Your task to perform on an android device: Is it going to rain tomorrow? Image 0: 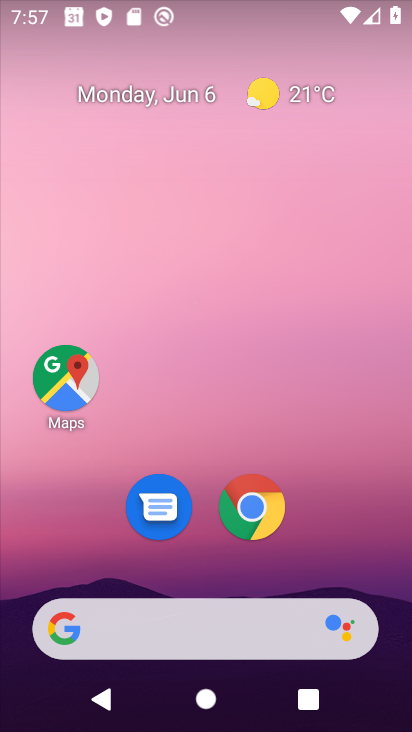
Step 0: drag from (182, 570) to (147, 55)
Your task to perform on an android device: Is it going to rain tomorrow? Image 1: 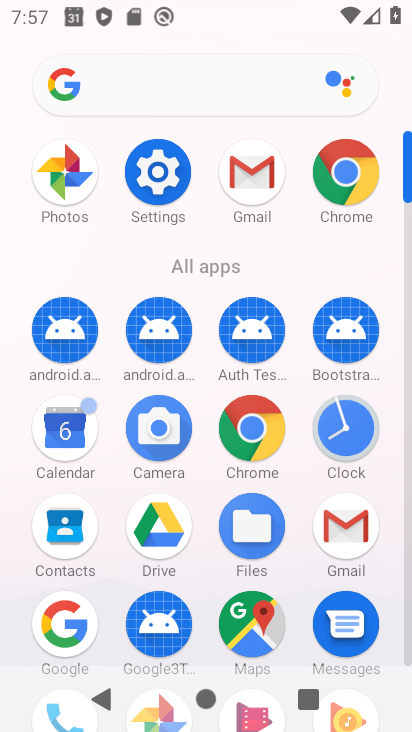
Step 1: drag from (185, 569) to (261, 115)
Your task to perform on an android device: Is it going to rain tomorrow? Image 2: 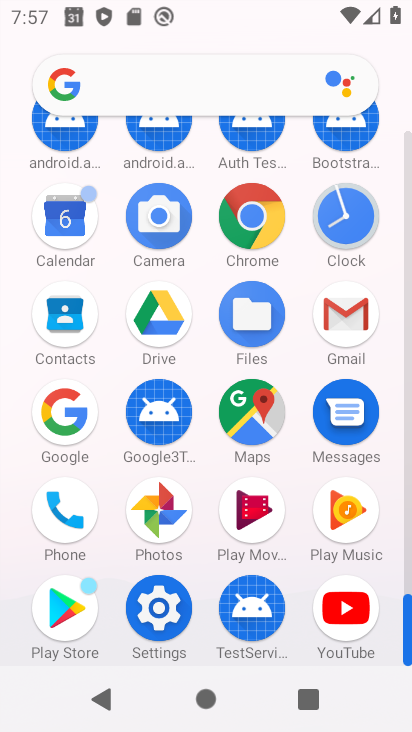
Step 2: drag from (209, 253) to (172, 731)
Your task to perform on an android device: Is it going to rain tomorrow? Image 3: 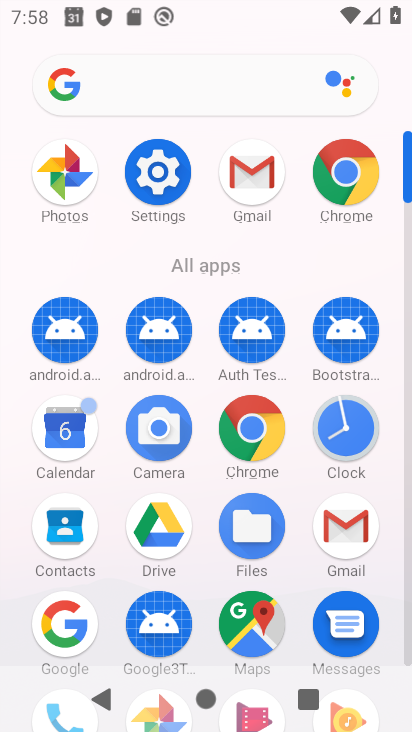
Step 3: drag from (198, 581) to (241, 236)
Your task to perform on an android device: Is it going to rain tomorrow? Image 4: 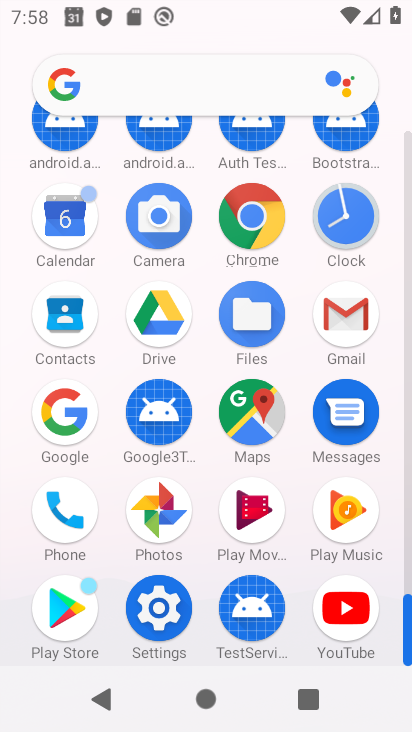
Step 4: drag from (204, 202) to (248, 686)
Your task to perform on an android device: Is it going to rain tomorrow? Image 5: 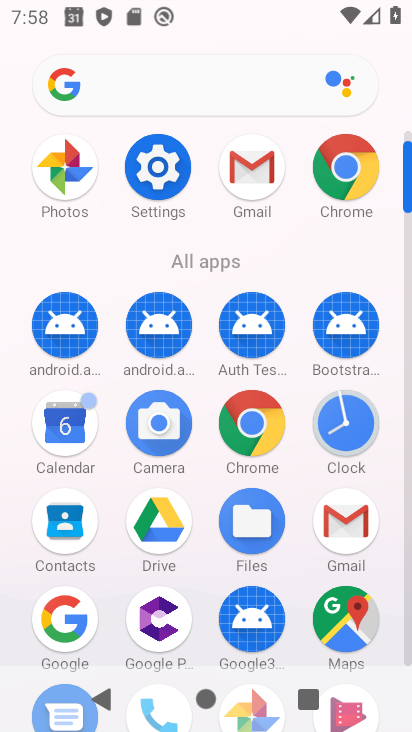
Step 5: drag from (197, 316) to (195, 528)
Your task to perform on an android device: Is it going to rain tomorrow? Image 6: 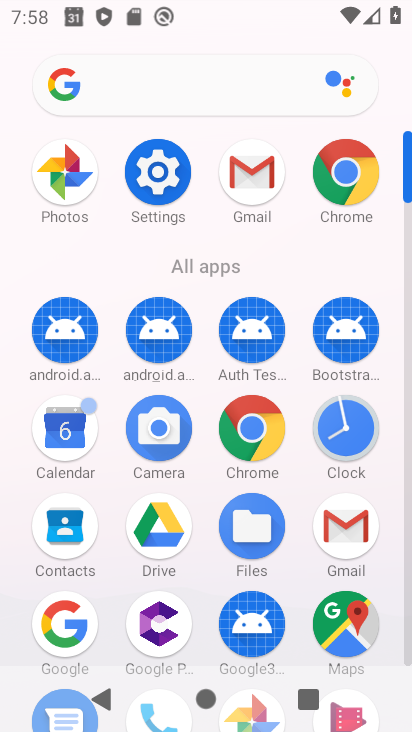
Step 6: drag from (199, 639) to (261, 377)
Your task to perform on an android device: Is it going to rain tomorrow? Image 7: 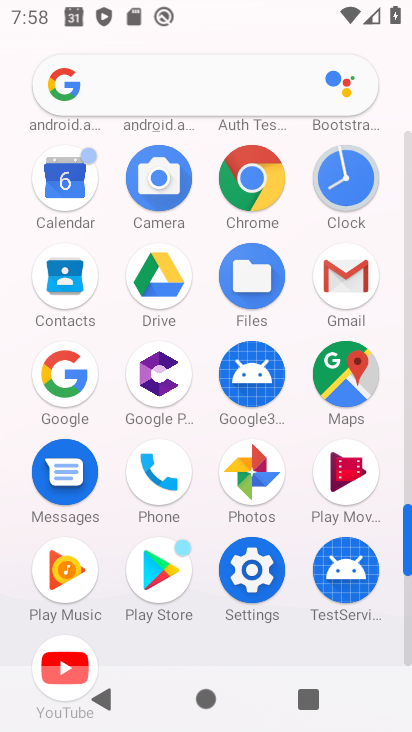
Step 7: click (59, 385)
Your task to perform on an android device: Is it going to rain tomorrow? Image 8: 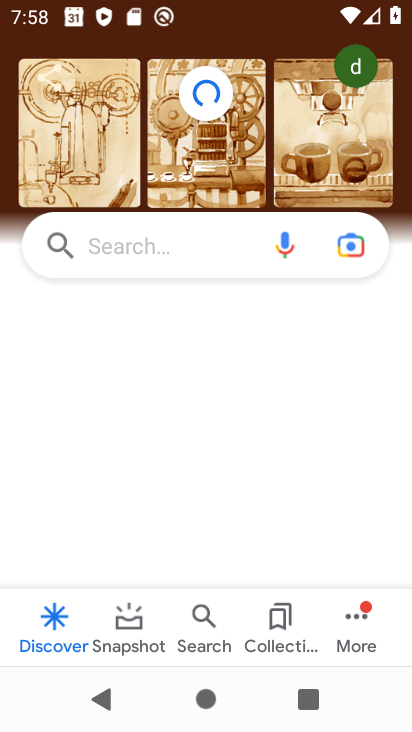
Step 8: click (180, 252)
Your task to perform on an android device: Is it going to rain tomorrow? Image 9: 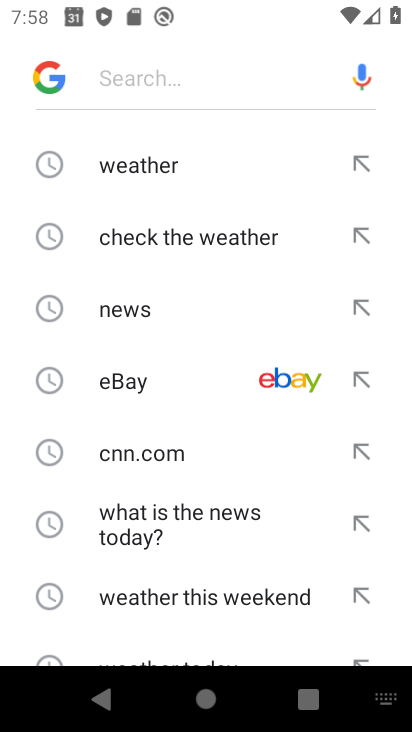
Step 9: click (137, 169)
Your task to perform on an android device: Is it going to rain tomorrow? Image 10: 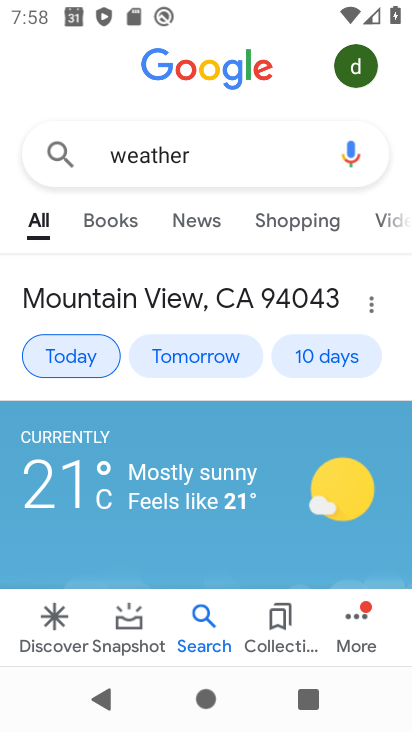
Step 10: task complete